Your task to perform on an android device: turn on translation in the chrome app Image 0: 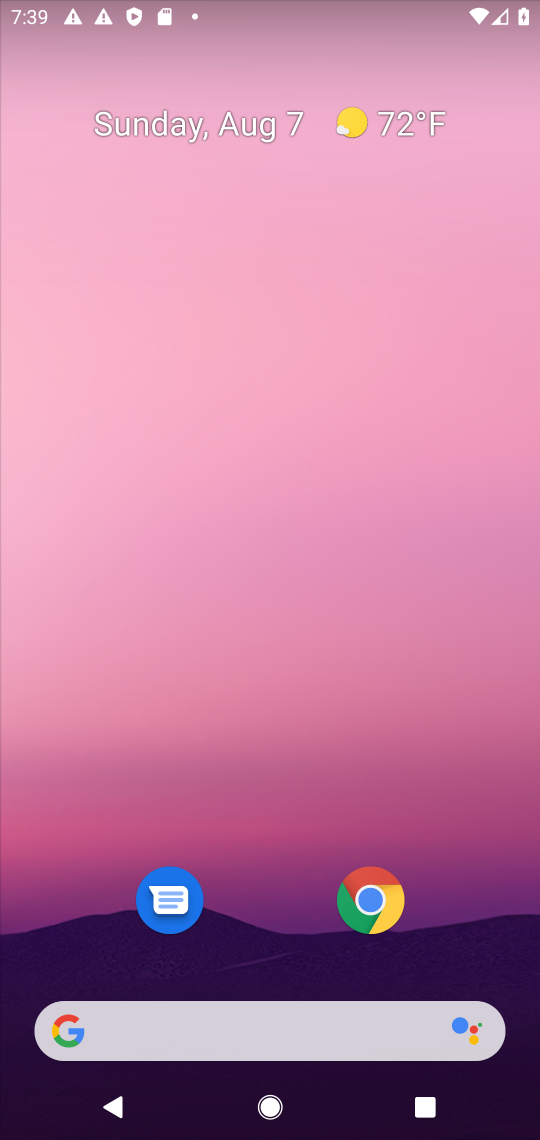
Step 0: press home button
Your task to perform on an android device: turn on translation in the chrome app Image 1: 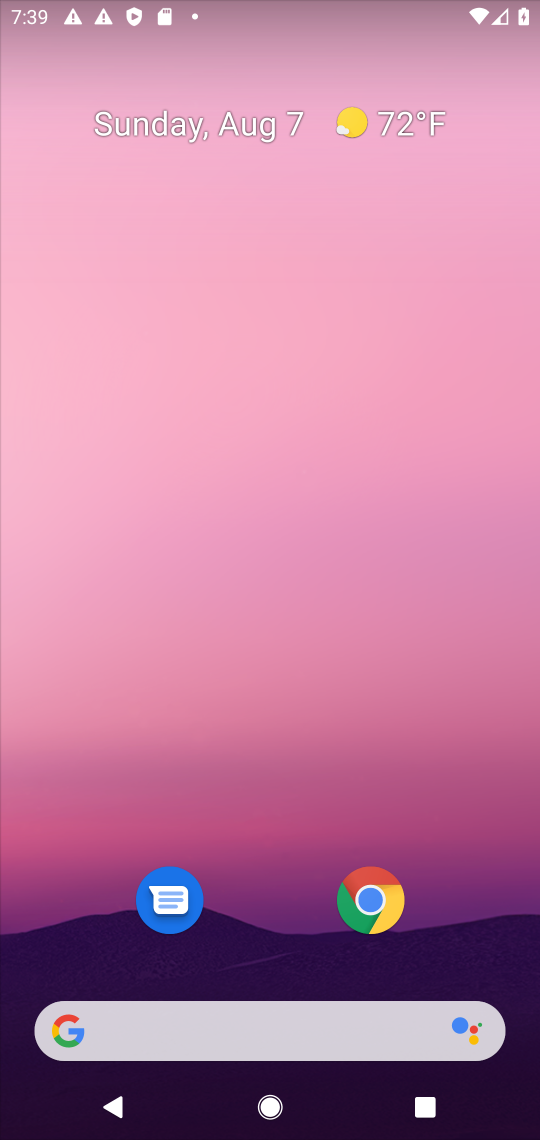
Step 1: click (378, 896)
Your task to perform on an android device: turn on translation in the chrome app Image 2: 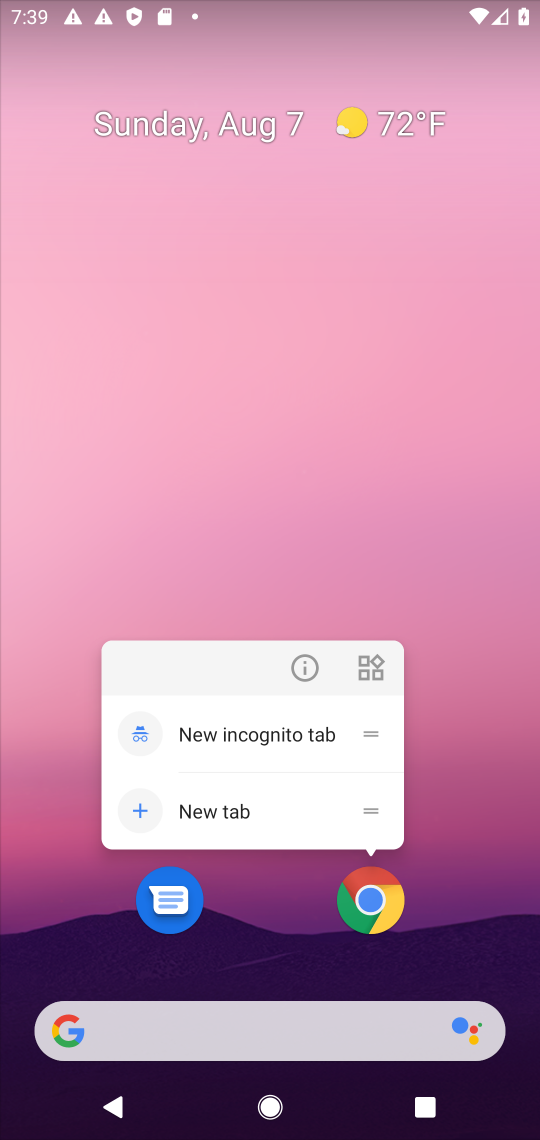
Step 2: click (378, 903)
Your task to perform on an android device: turn on translation in the chrome app Image 3: 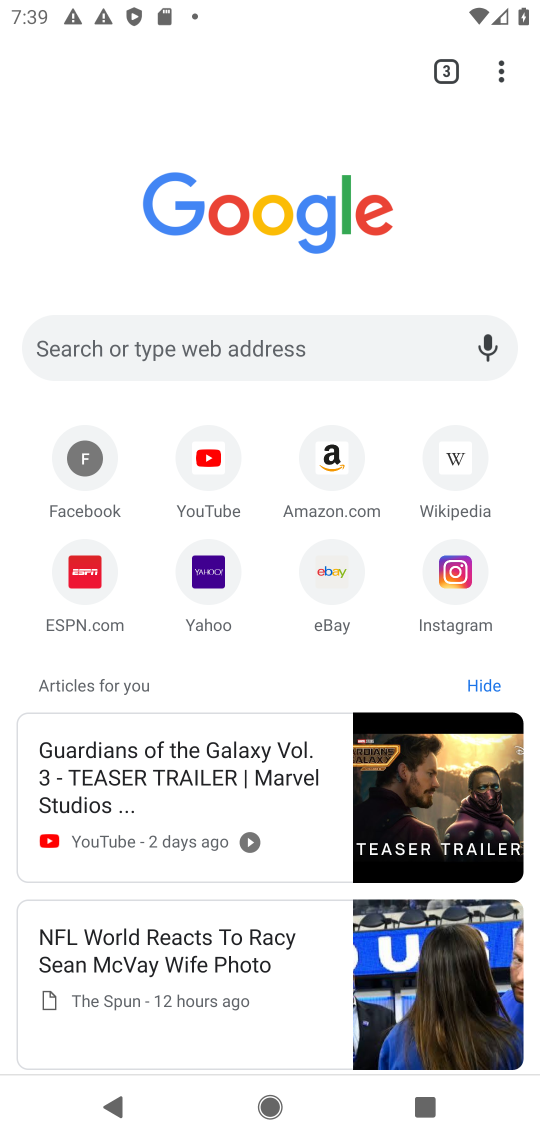
Step 3: drag from (503, 68) to (287, 606)
Your task to perform on an android device: turn on translation in the chrome app Image 4: 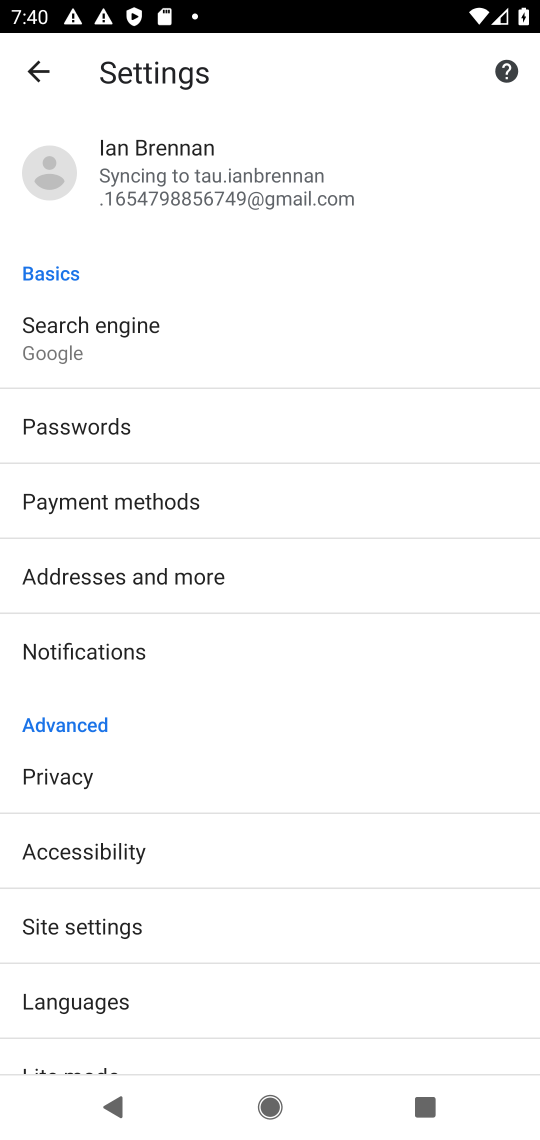
Step 4: click (91, 1012)
Your task to perform on an android device: turn on translation in the chrome app Image 5: 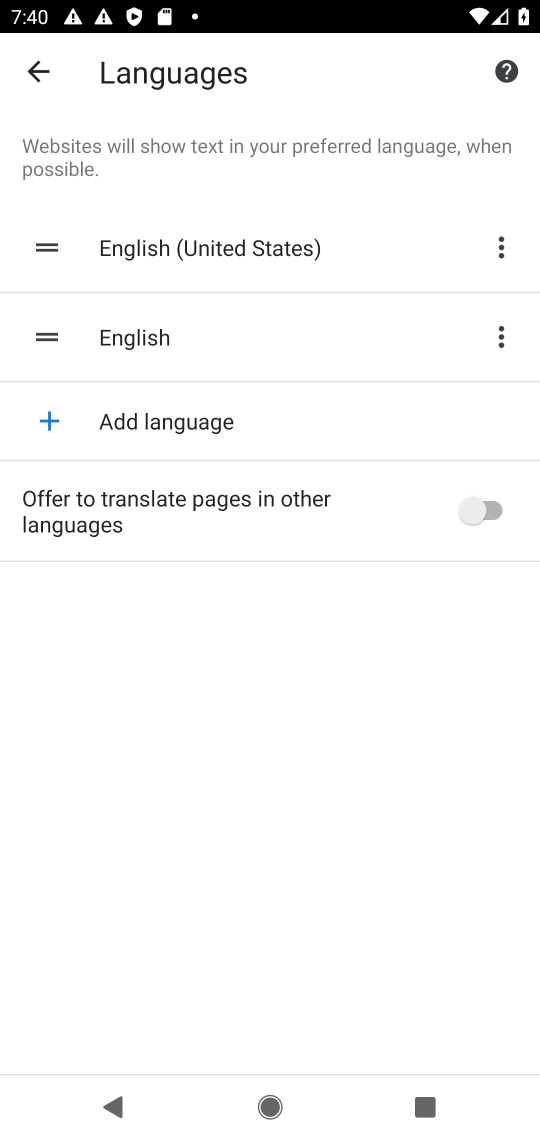
Step 5: click (493, 505)
Your task to perform on an android device: turn on translation in the chrome app Image 6: 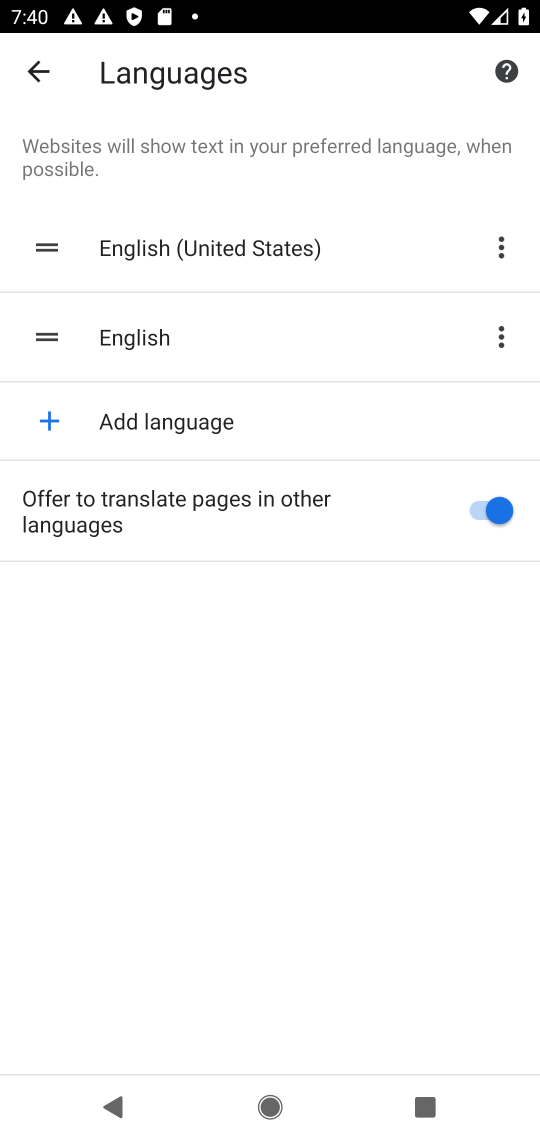
Step 6: task complete